Your task to perform on an android device: turn off data saver in the chrome app Image 0: 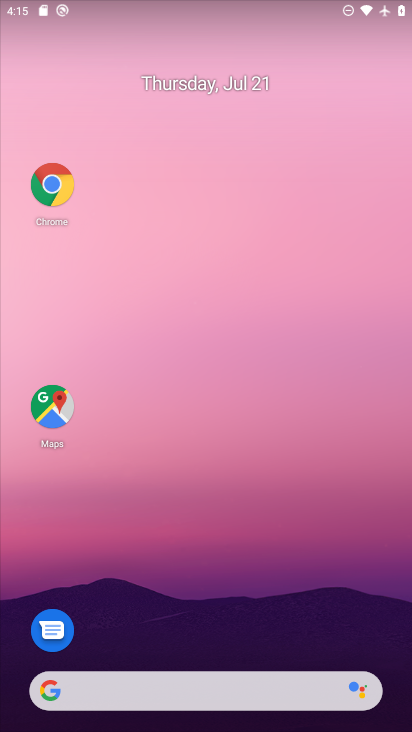
Step 0: drag from (198, 664) to (258, 16)
Your task to perform on an android device: turn off data saver in the chrome app Image 1: 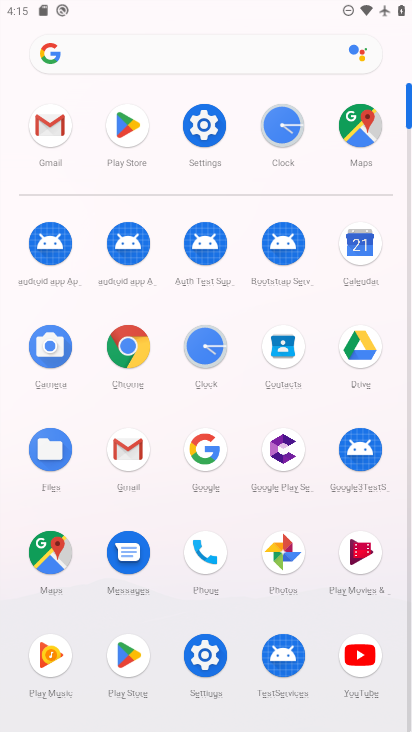
Step 1: click (128, 347)
Your task to perform on an android device: turn off data saver in the chrome app Image 2: 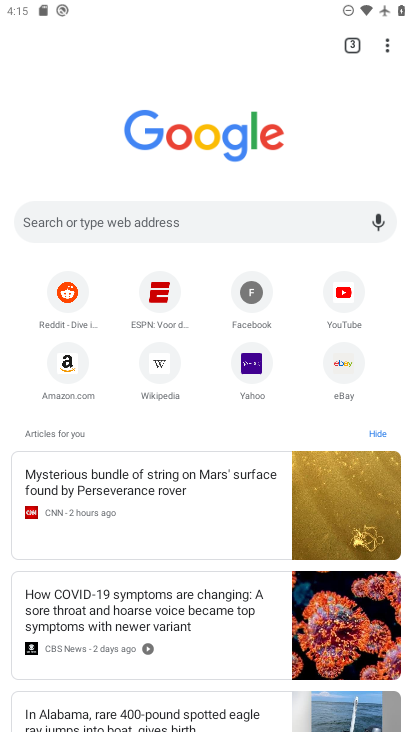
Step 2: drag from (385, 46) to (248, 373)
Your task to perform on an android device: turn off data saver in the chrome app Image 3: 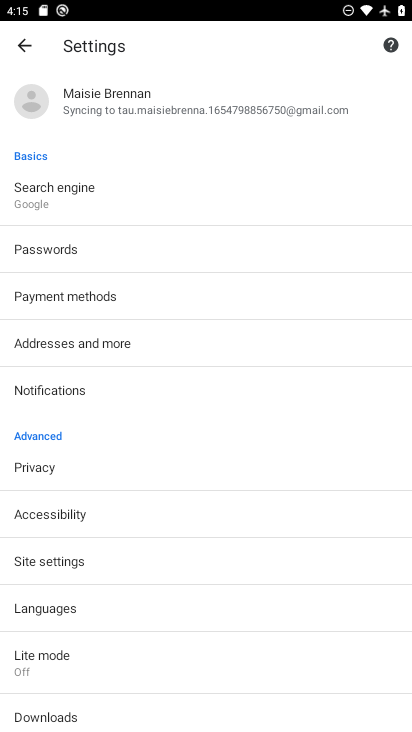
Step 3: click (75, 660)
Your task to perform on an android device: turn off data saver in the chrome app Image 4: 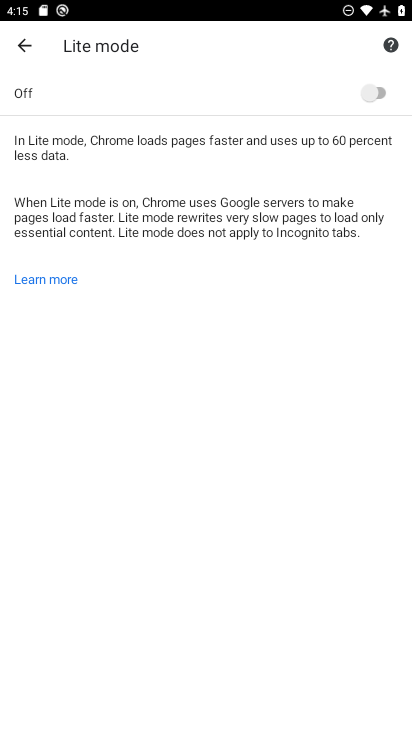
Step 4: task complete